Your task to perform on an android device: check battery use Image 0: 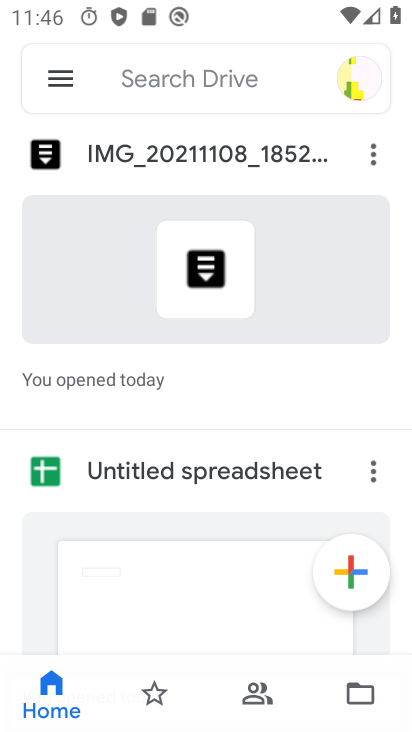
Step 0: press home button
Your task to perform on an android device: check battery use Image 1: 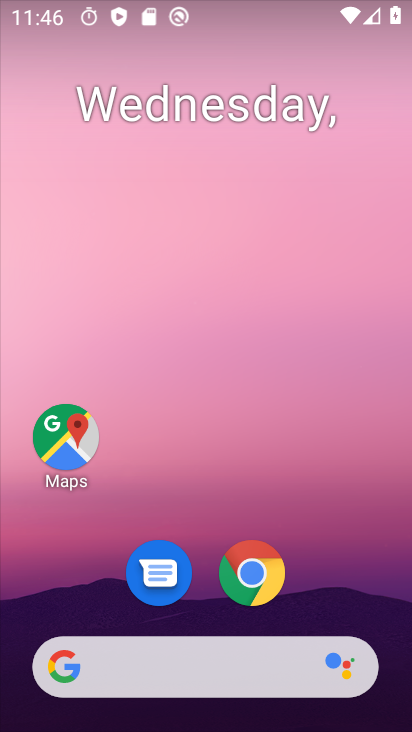
Step 1: drag from (392, 351) to (391, 278)
Your task to perform on an android device: check battery use Image 2: 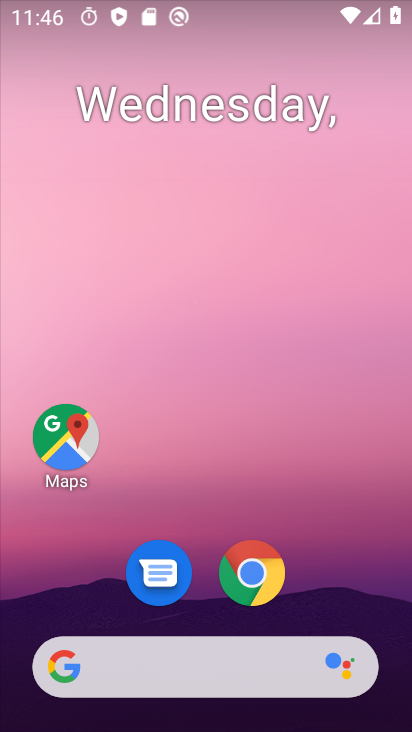
Step 2: drag from (364, 396) to (328, 191)
Your task to perform on an android device: check battery use Image 3: 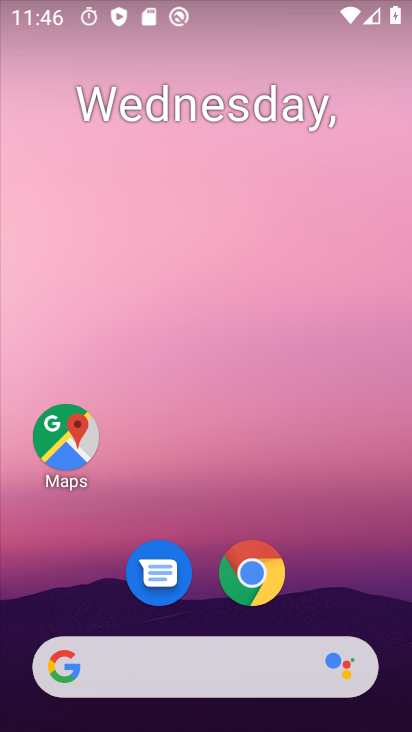
Step 3: drag from (393, 297) to (387, 220)
Your task to perform on an android device: check battery use Image 4: 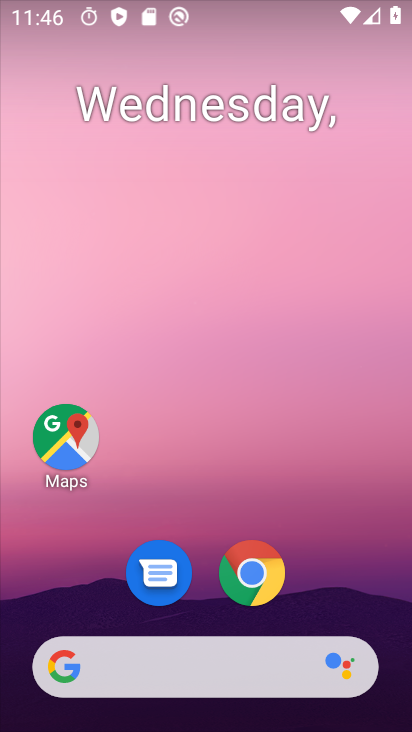
Step 4: drag from (393, 547) to (376, 263)
Your task to perform on an android device: check battery use Image 5: 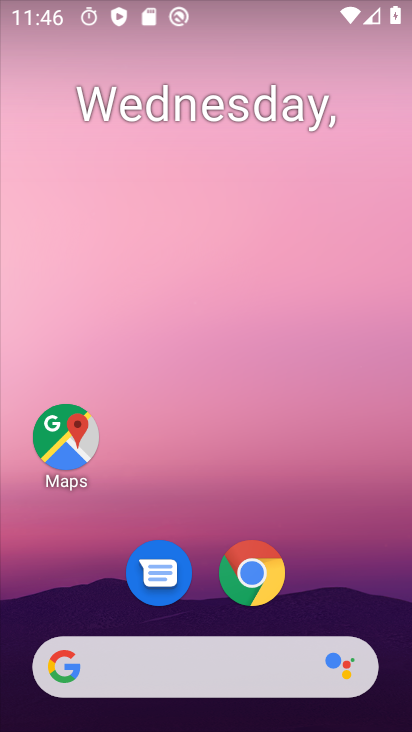
Step 5: drag from (394, 549) to (409, 231)
Your task to perform on an android device: check battery use Image 6: 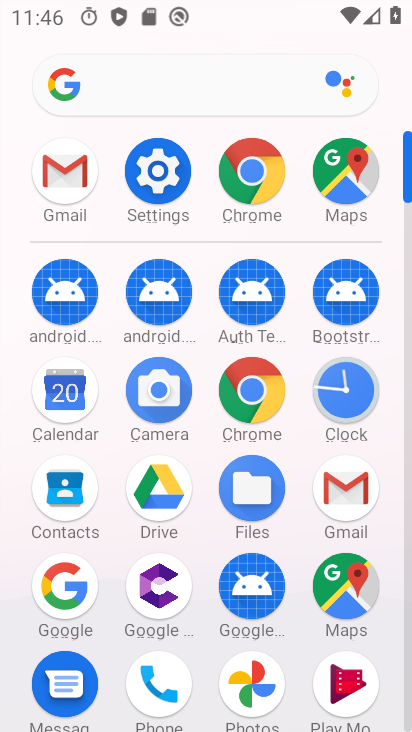
Step 6: click (162, 160)
Your task to perform on an android device: check battery use Image 7: 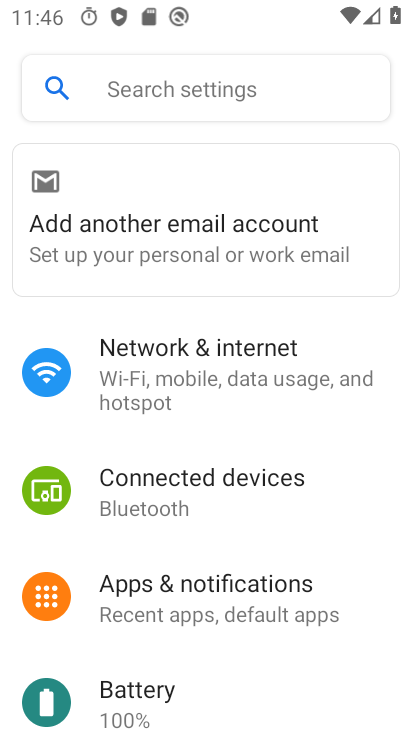
Step 7: click (118, 704)
Your task to perform on an android device: check battery use Image 8: 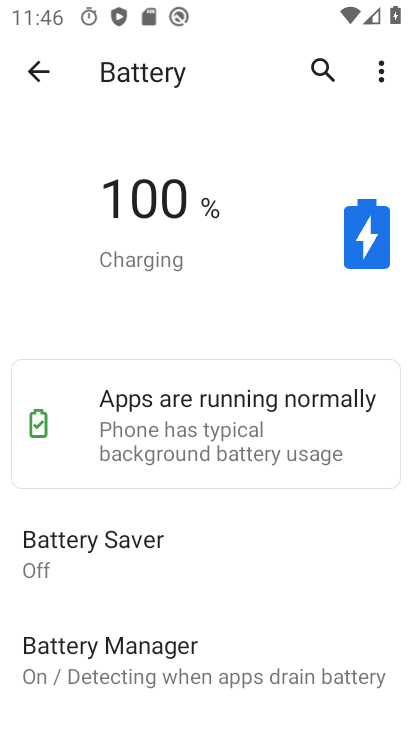
Step 8: click (376, 68)
Your task to perform on an android device: check battery use Image 9: 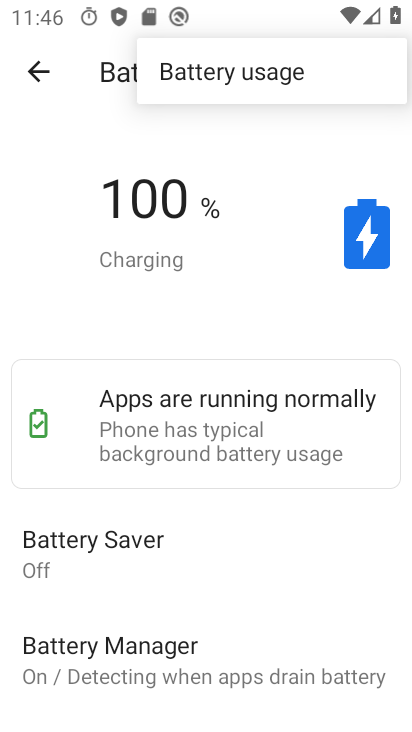
Step 9: click (278, 72)
Your task to perform on an android device: check battery use Image 10: 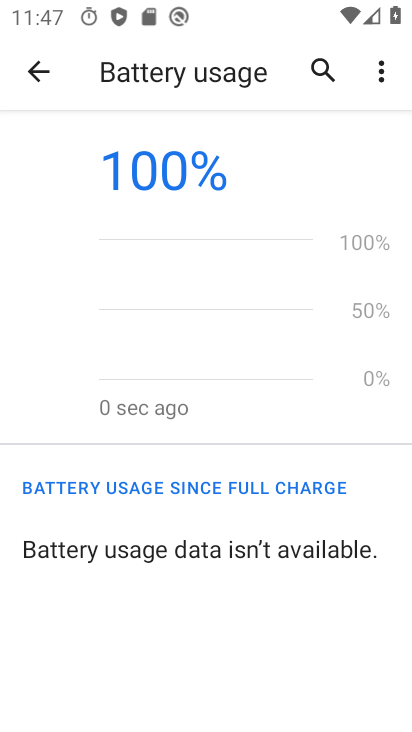
Step 10: task complete